Your task to perform on an android device: open wifi settings Image 0: 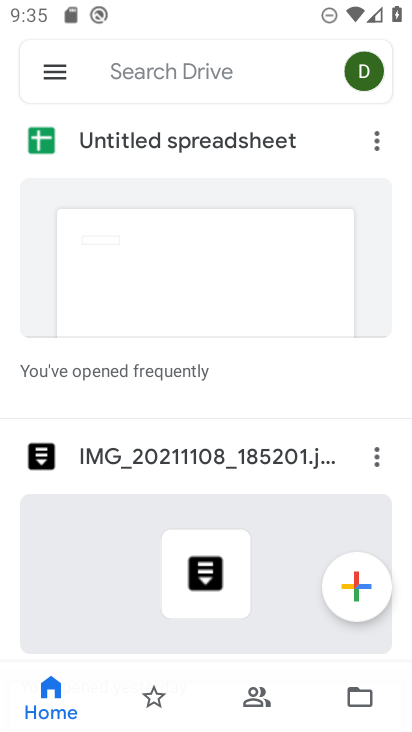
Step 0: press home button
Your task to perform on an android device: open wifi settings Image 1: 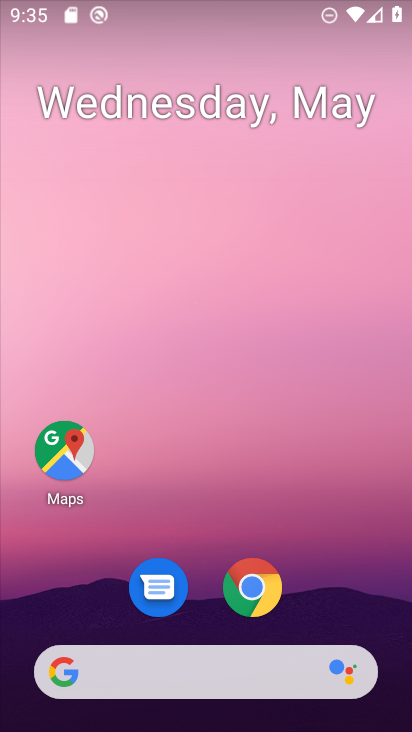
Step 1: drag from (229, 724) to (206, 204)
Your task to perform on an android device: open wifi settings Image 2: 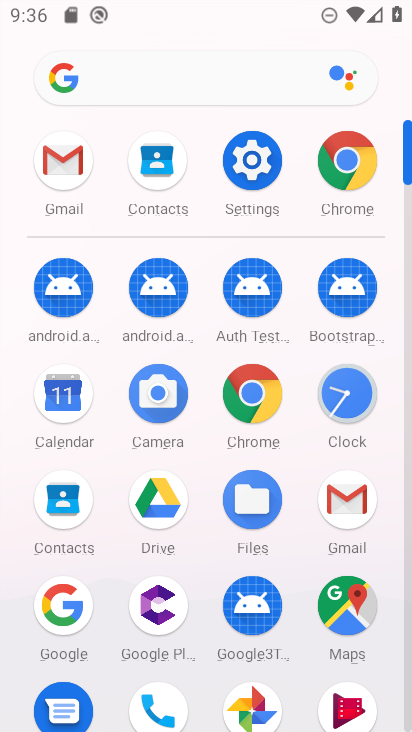
Step 2: click (251, 170)
Your task to perform on an android device: open wifi settings Image 3: 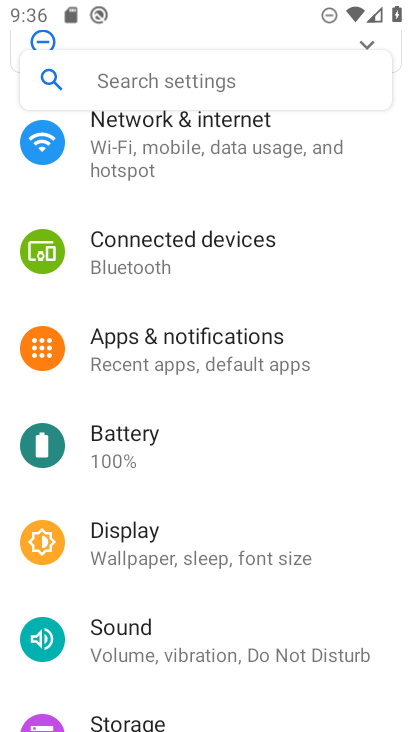
Step 3: drag from (236, 162) to (248, 482)
Your task to perform on an android device: open wifi settings Image 4: 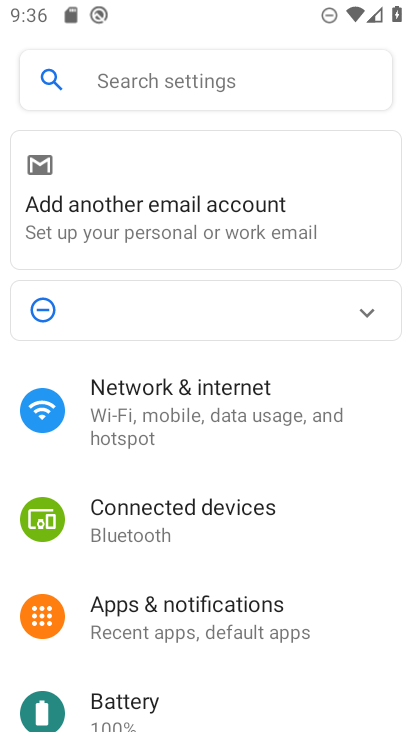
Step 4: click (182, 416)
Your task to perform on an android device: open wifi settings Image 5: 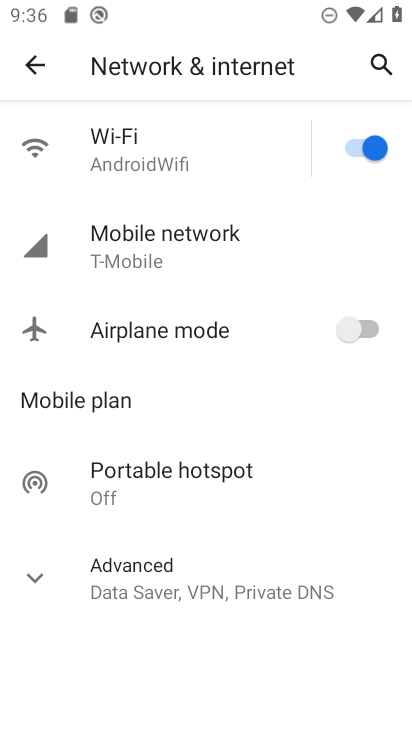
Step 5: click (148, 158)
Your task to perform on an android device: open wifi settings Image 6: 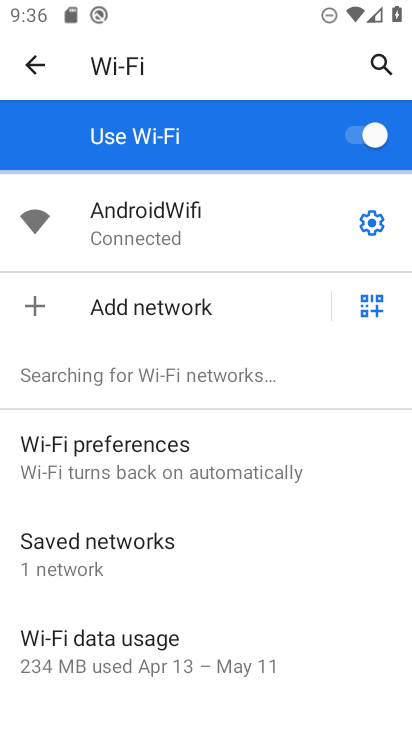
Step 6: task complete